Your task to perform on an android device: Open calendar and show me the third week of next month Image 0: 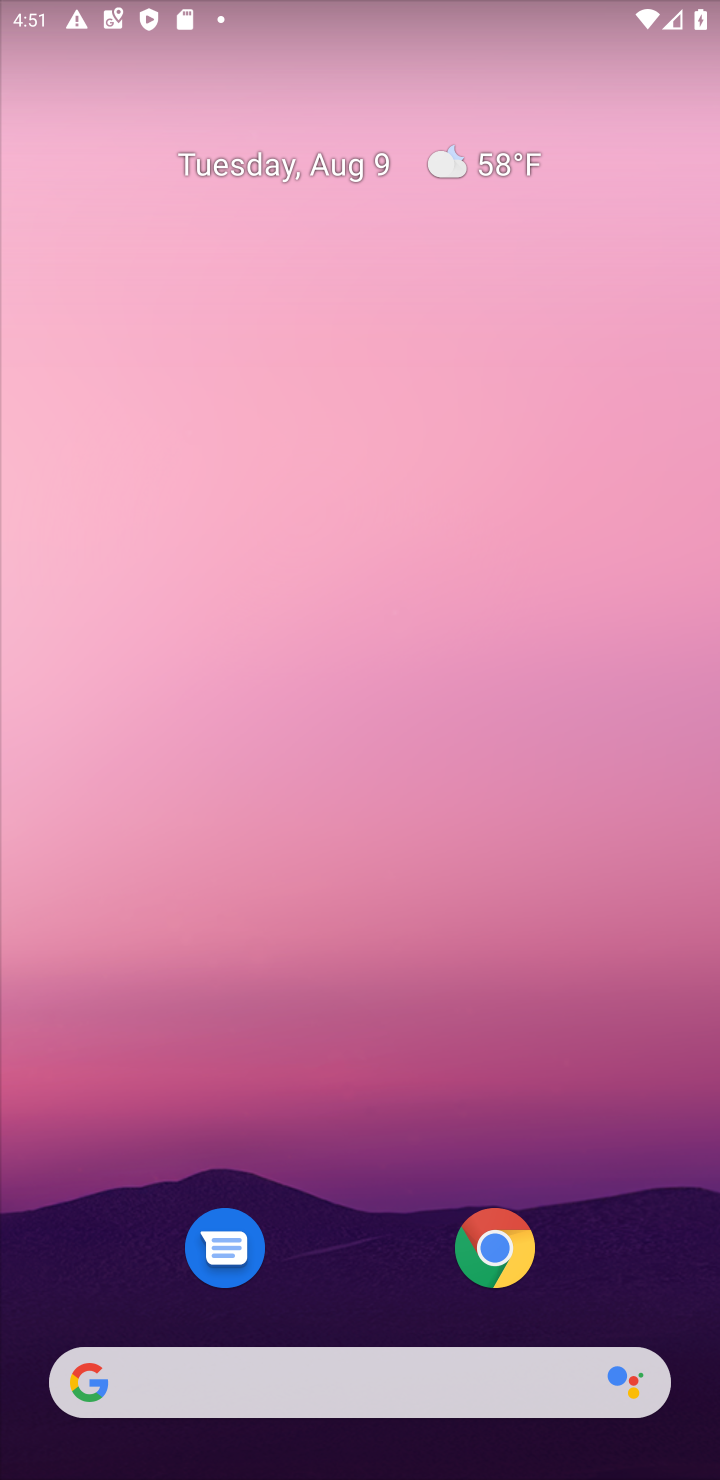
Step 0: drag from (368, 1160) to (366, 472)
Your task to perform on an android device: Open calendar and show me the third week of next month Image 1: 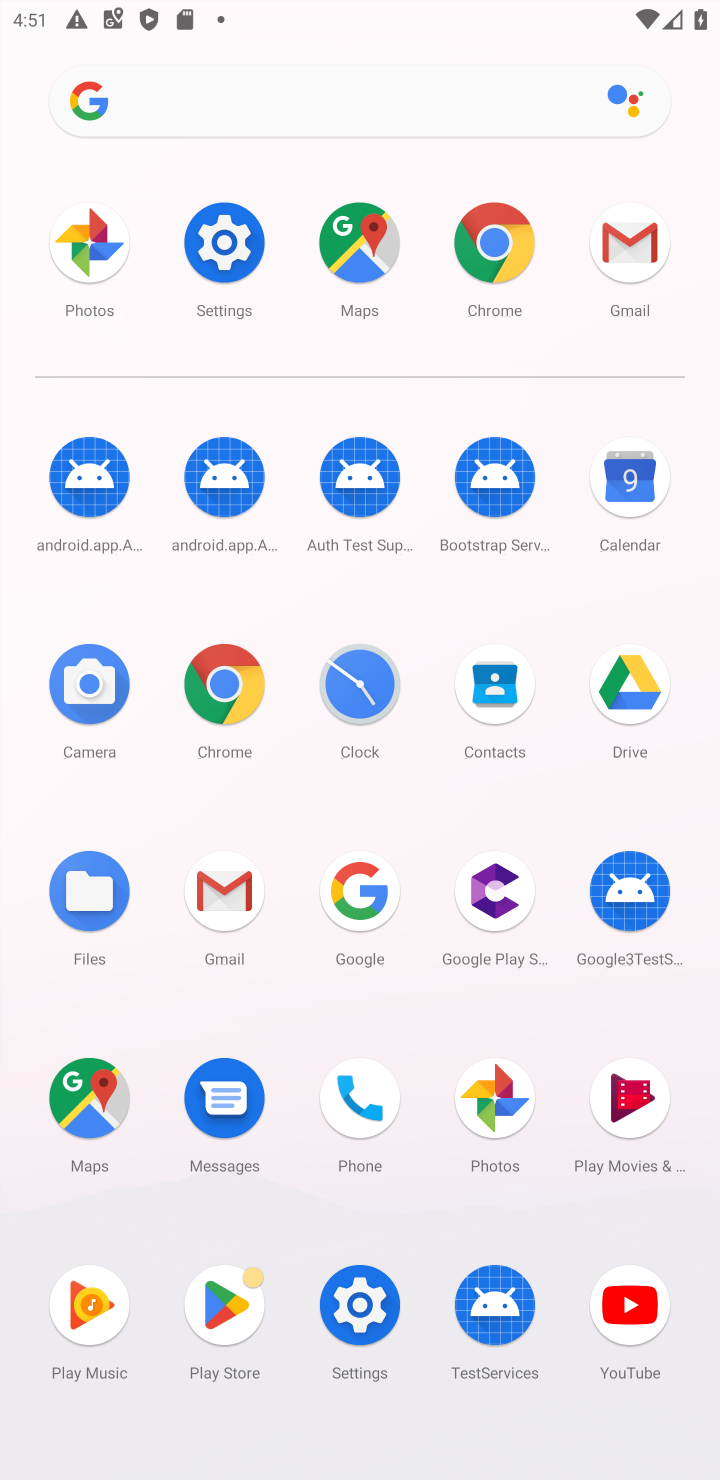
Step 1: click (621, 470)
Your task to perform on an android device: Open calendar and show me the third week of next month Image 2: 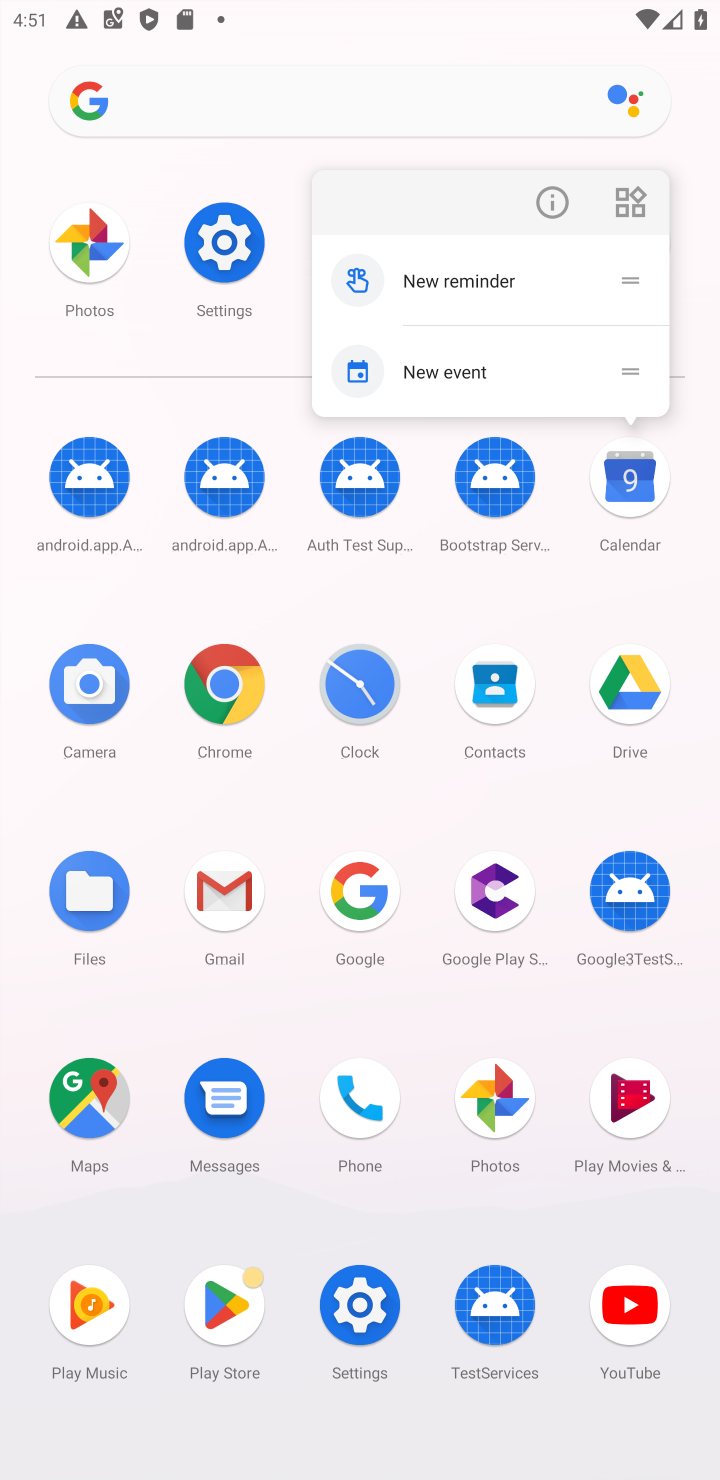
Step 2: click (610, 492)
Your task to perform on an android device: Open calendar and show me the third week of next month Image 3: 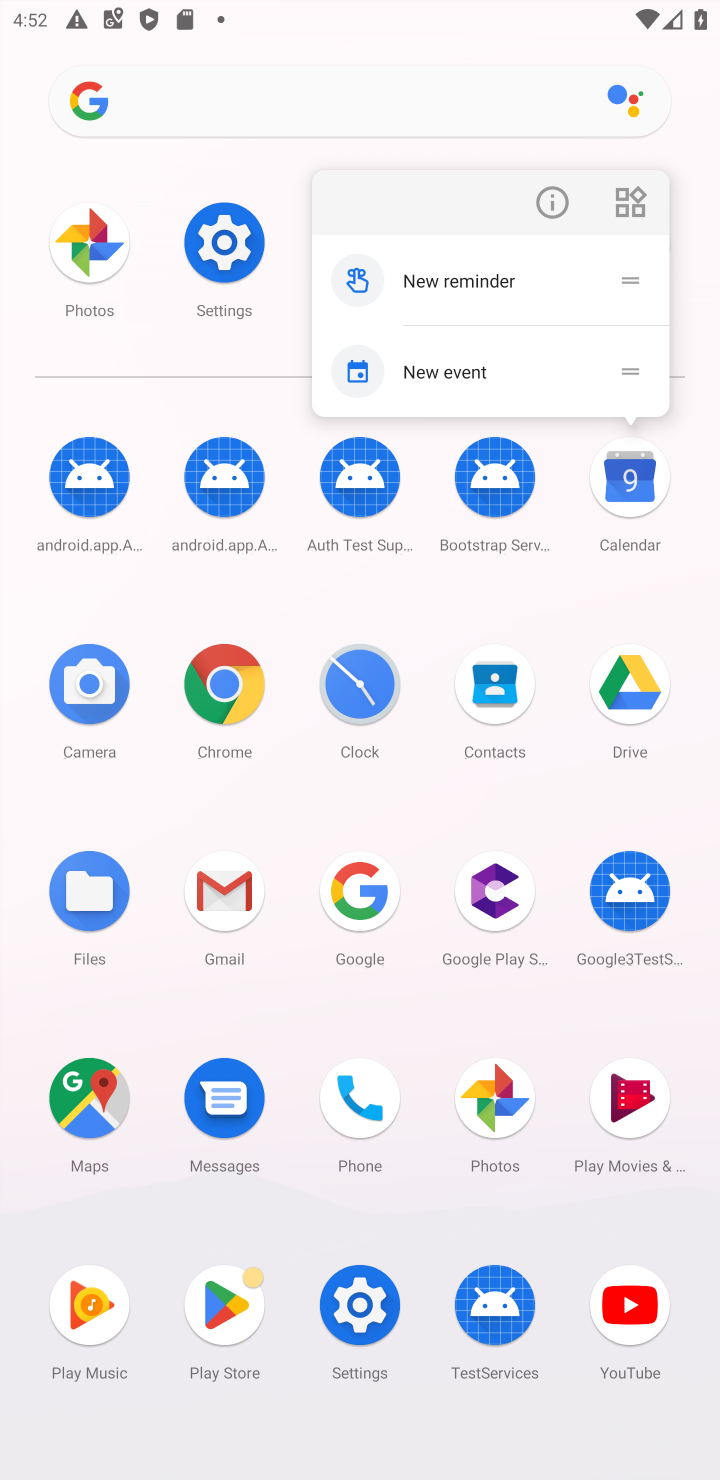
Step 3: click (616, 490)
Your task to perform on an android device: Open calendar and show me the third week of next month Image 4: 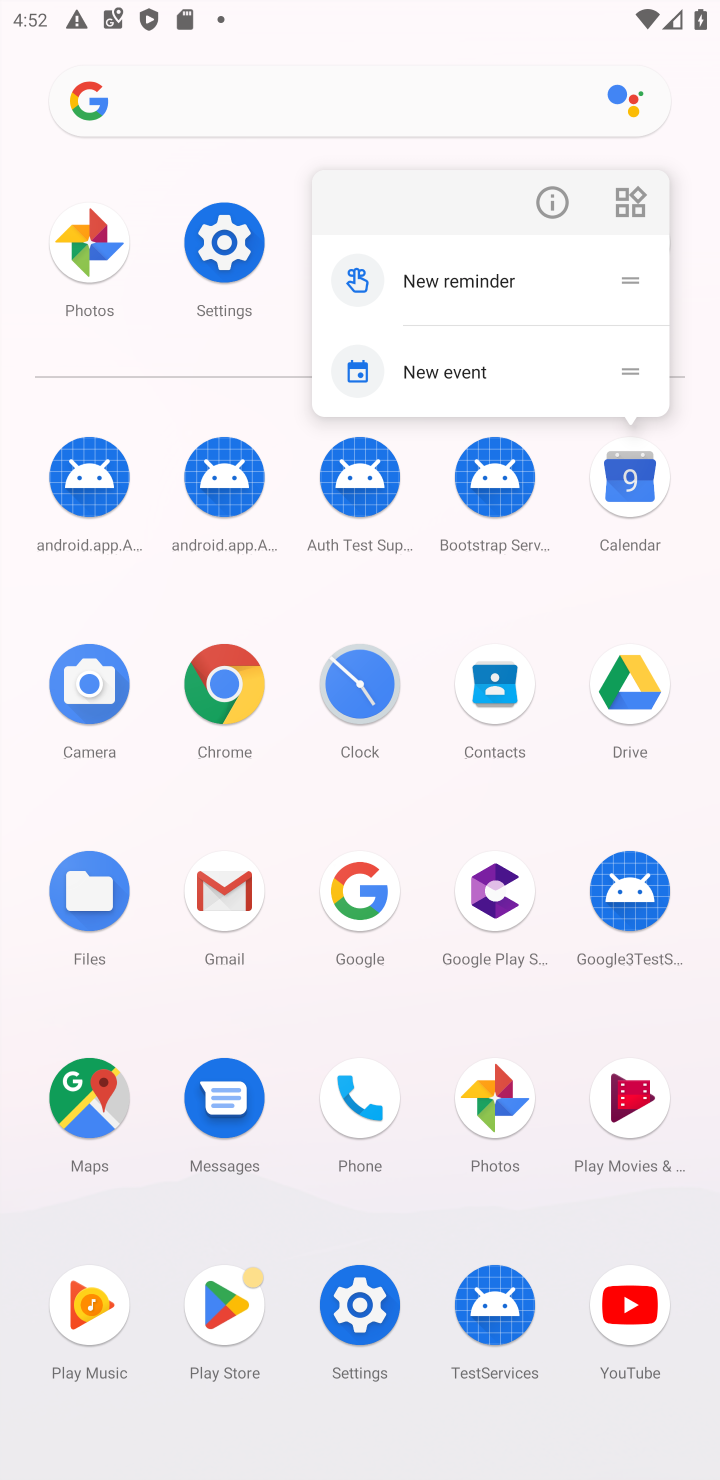
Step 4: click (674, 594)
Your task to perform on an android device: Open calendar and show me the third week of next month Image 5: 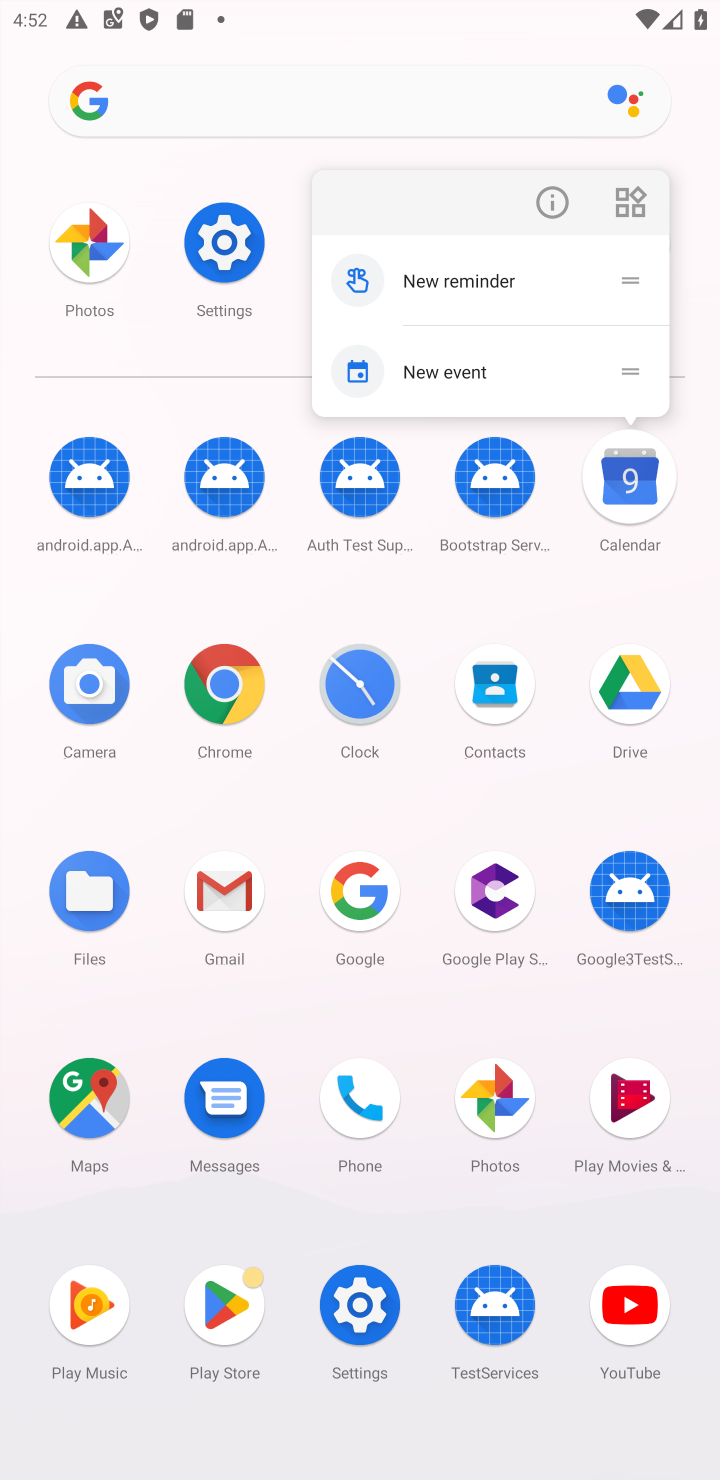
Step 5: click (631, 478)
Your task to perform on an android device: Open calendar and show me the third week of next month Image 6: 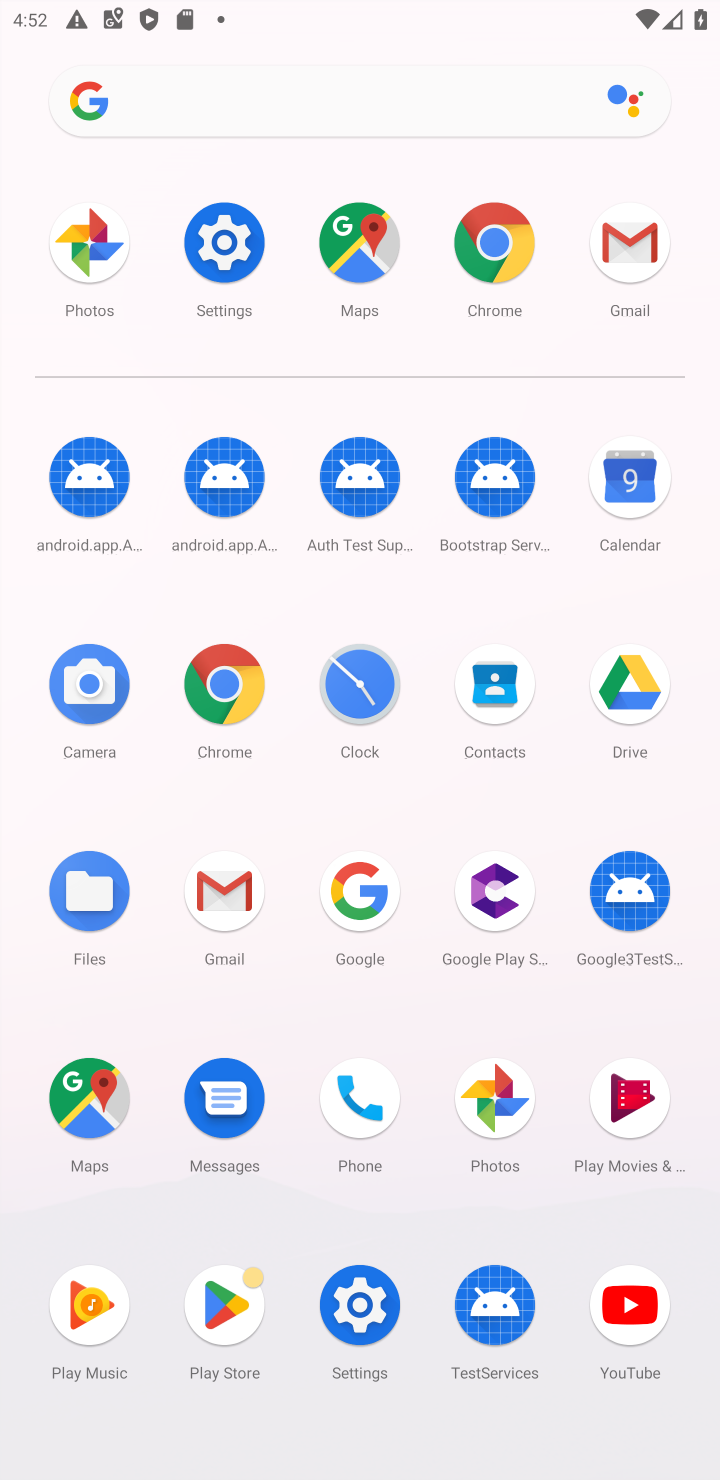
Step 6: click (631, 478)
Your task to perform on an android device: Open calendar and show me the third week of next month Image 7: 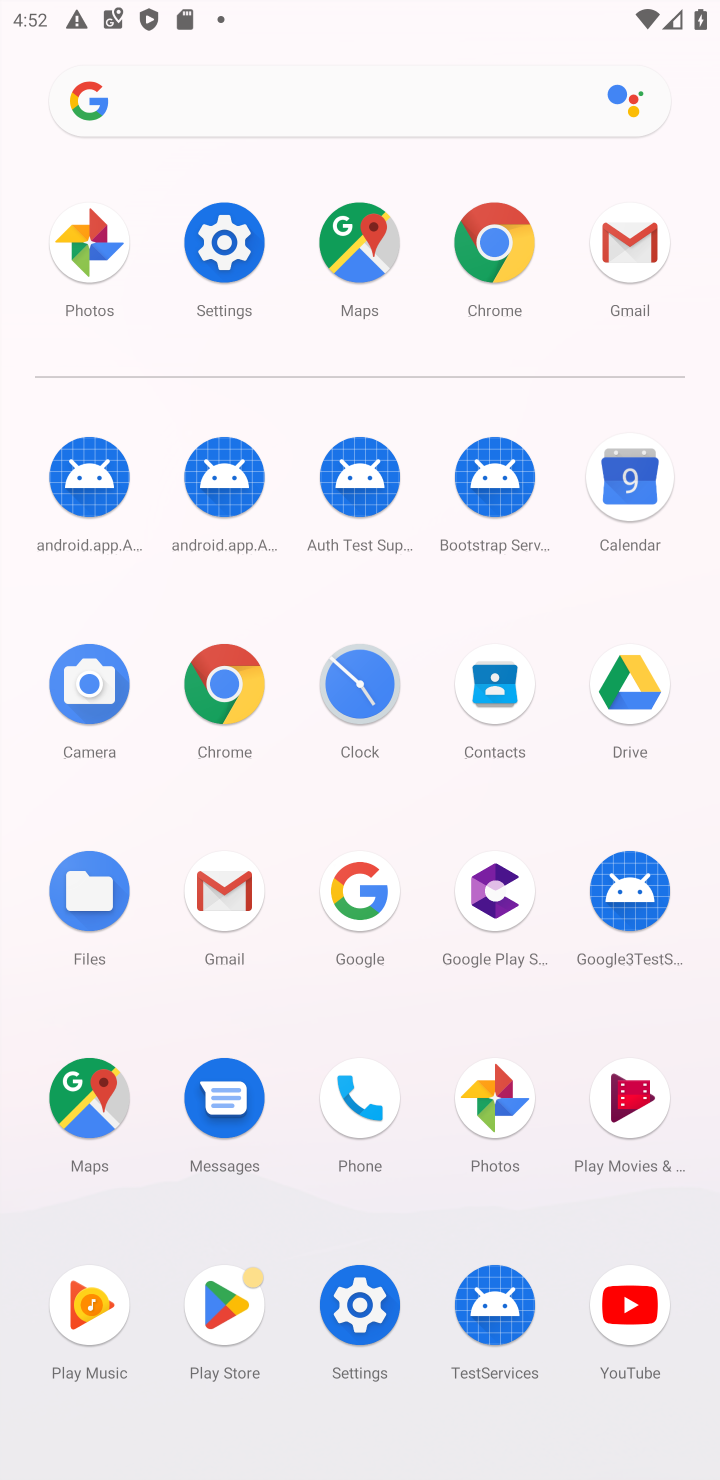
Step 7: click (631, 478)
Your task to perform on an android device: Open calendar and show me the third week of next month Image 8: 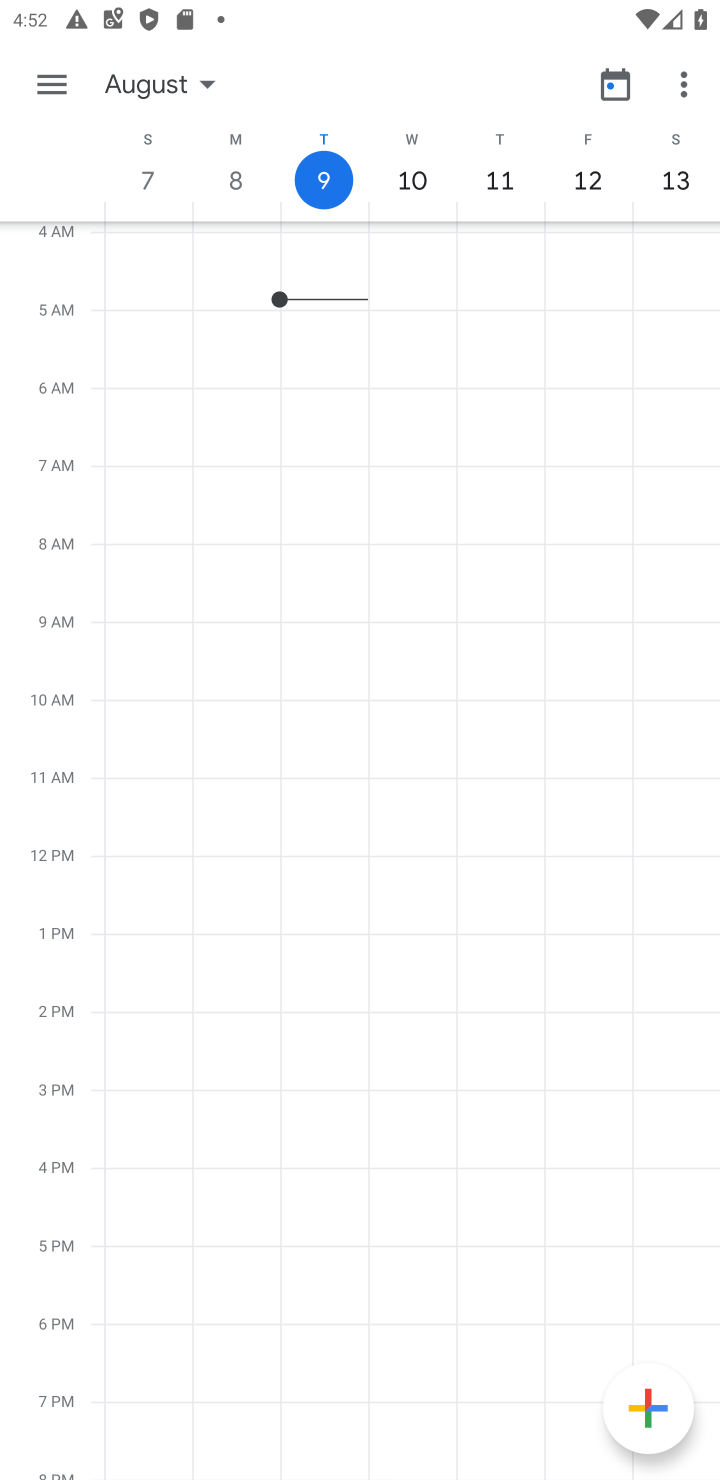
Step 8: click (180, 91)
Your task to perform on an android device: Open calendar and show me the third week of next month Image 9: 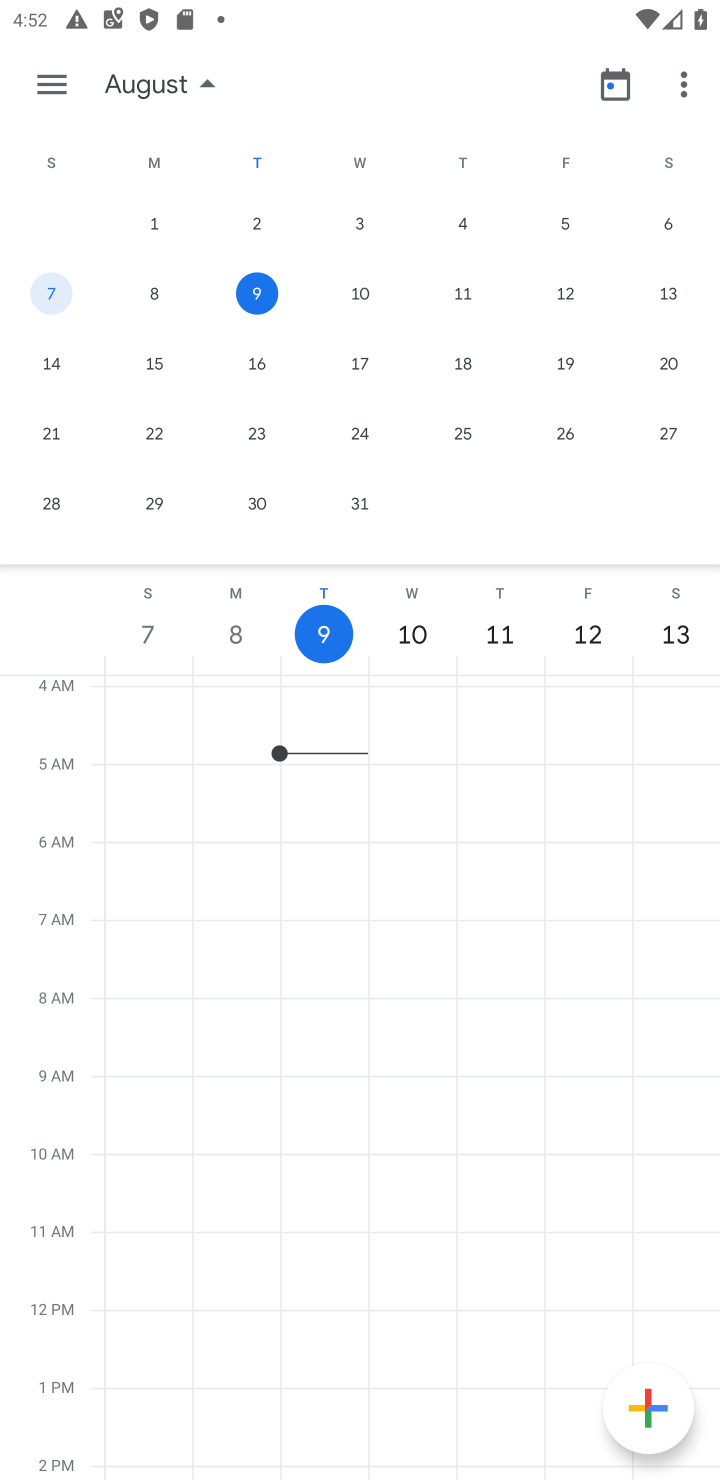
Step 9: drag from (664, 392) to (38, 441)
Your task to perform on an android device: Open calendar and show me the third week of next month Image 10: 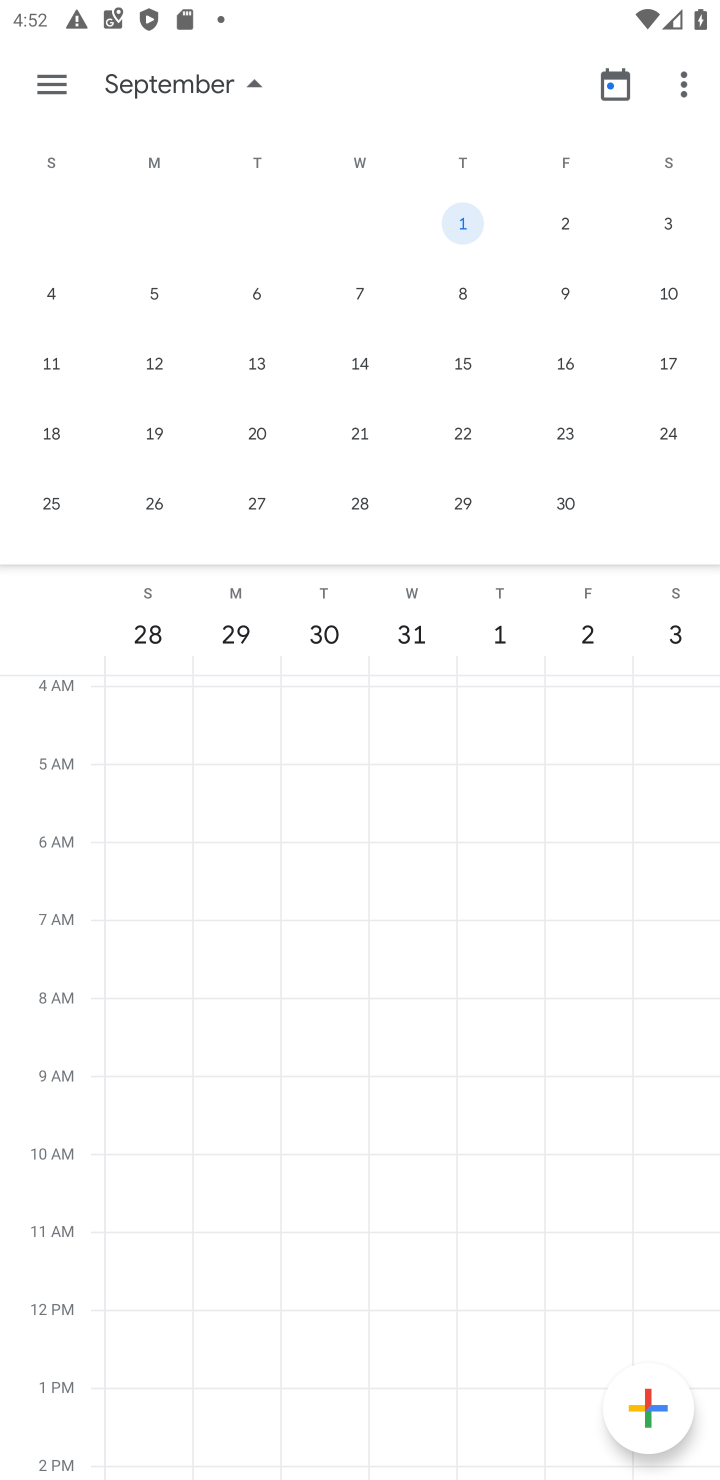
Step 10: click (253, 436)
Your task to perform on an android device: Open calendar and show me the third week of next month Image 11: 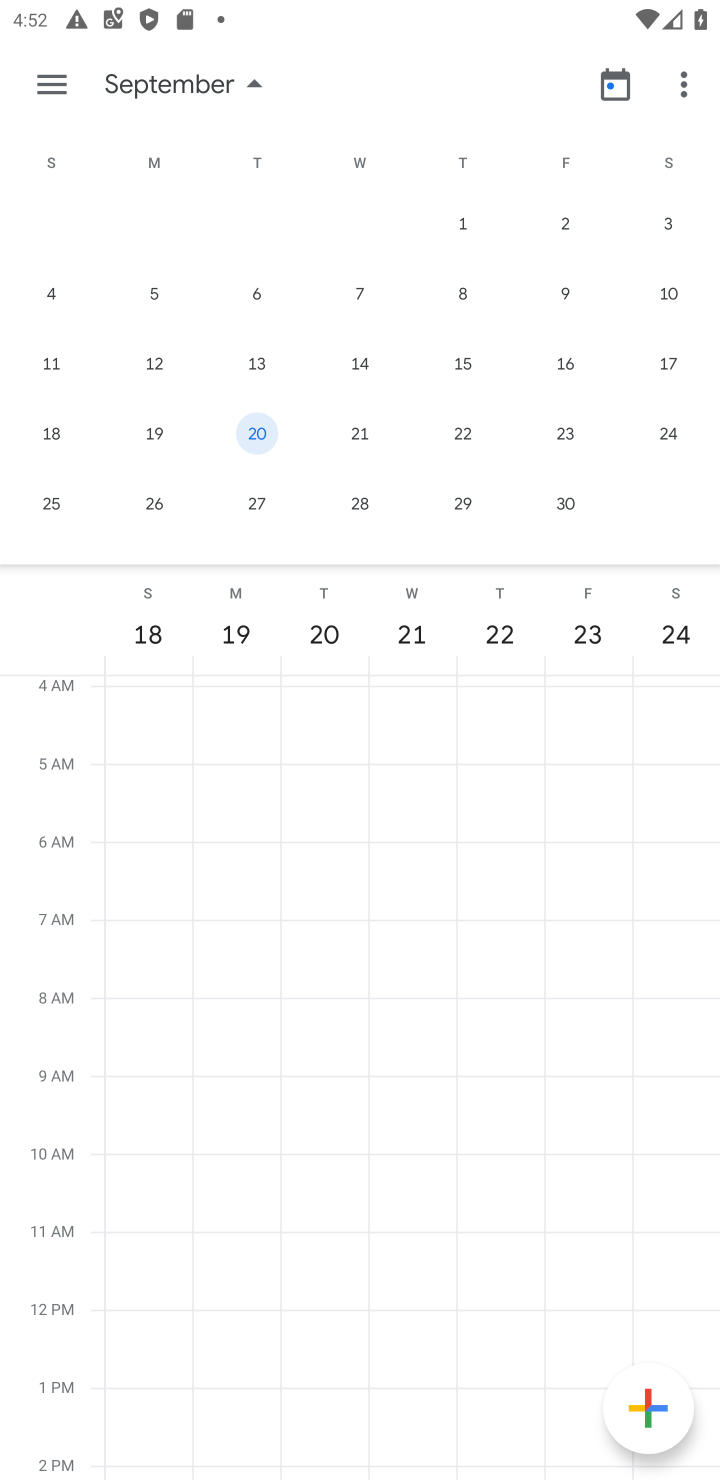
Step 11: task complete